Your task to perform on an android device: Go to privacy settings Image 0: 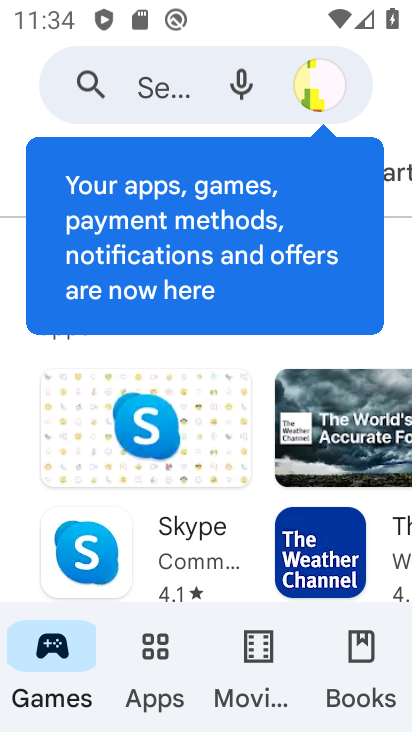
Step 0: press home button
Your task to perform on an android device: Go to privacy settings Image 1: 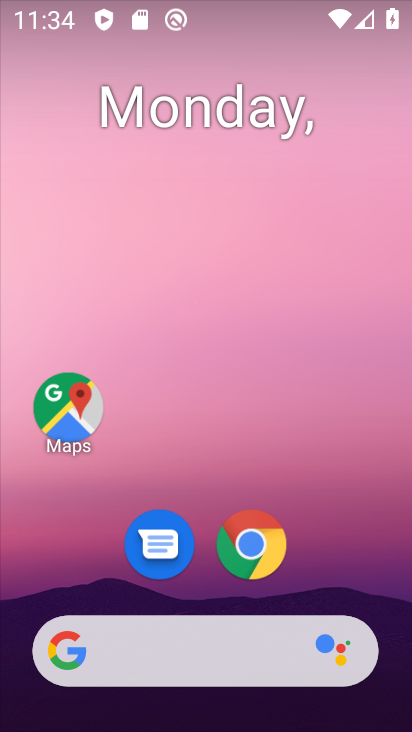
Step 1: drag from (322, 529) to (322, 190)
Your task to perform on an android device: Go to privacy settings Image 2: 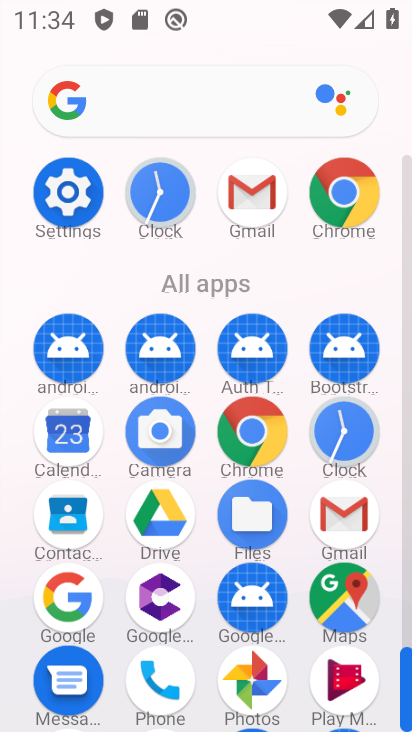
Step 2: click (47, 202)
Your task to perform on an android device: Go to privacy settings Image 3: 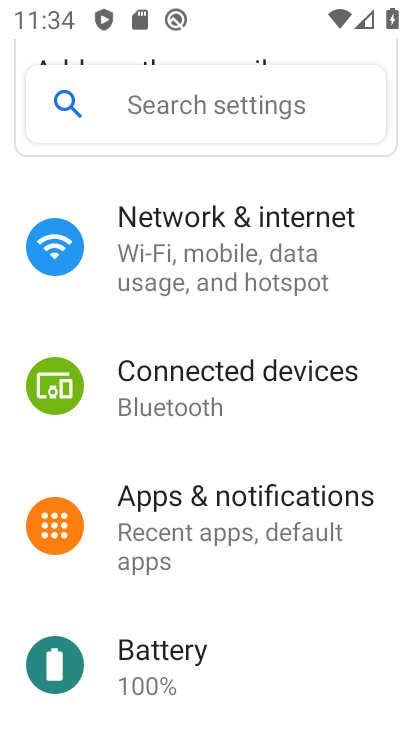
Step 3: task complete